Your task to perform on an android device: turn pop-ups on in chrome Image 0: 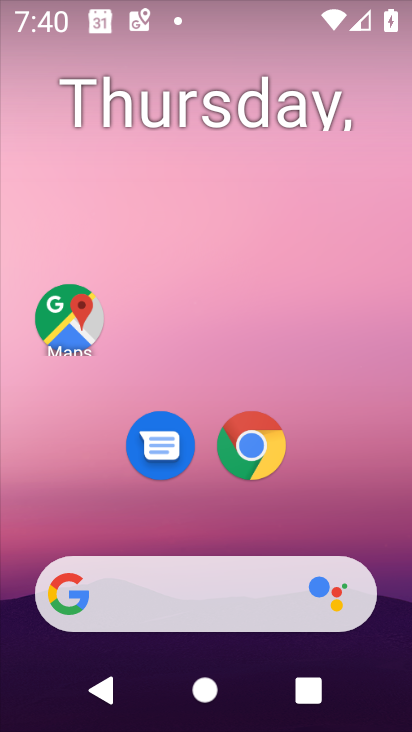
Step 0: drag from (390, 617) to (410, 487)
Your task to perform on an android device: turn pop-ups on in chrome Image 1: 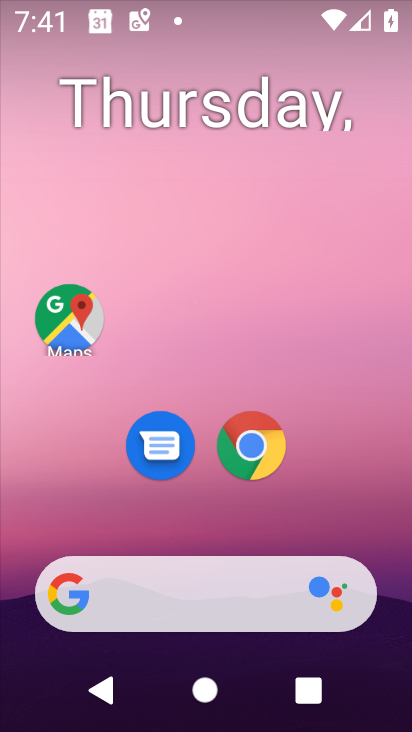
Step 1: drag from (386, 660) to (336, 64)
Your task to perform on an android device: turn pop-ups on in chrome Image 2: 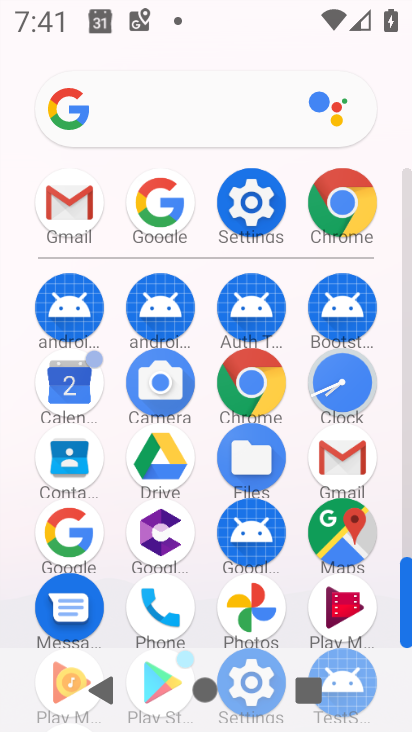
Step 2: click (338, 218)
Your task to perform on an android device: turn pop-ups on in chrome Image 3: 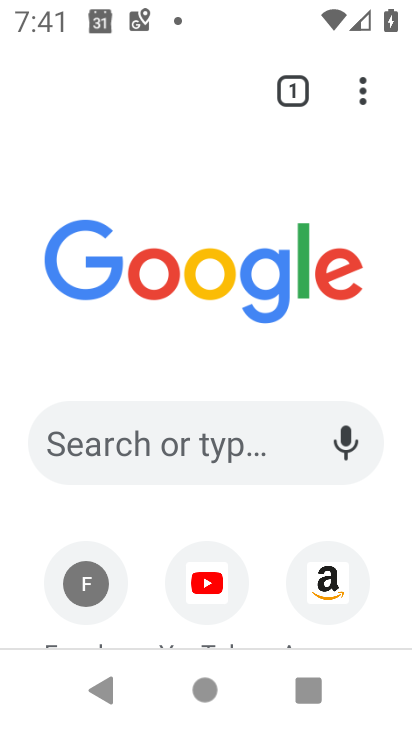
Step 3: click (359, 82)
Your task to perform on an android device: turn pop-ups on in chrome Image 4: 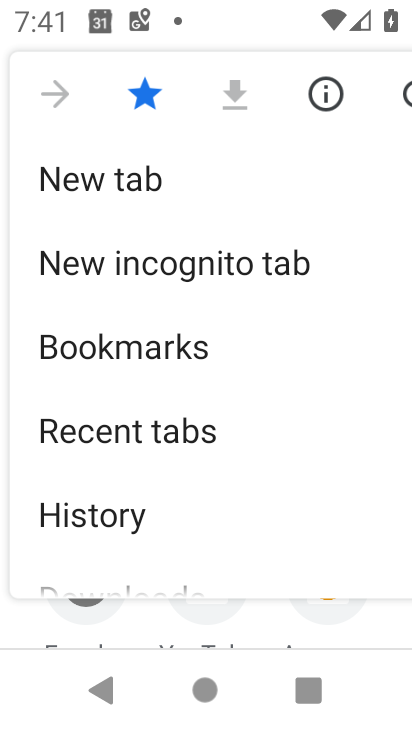
Step 4: drag from (123, 555) to (192, 58)
Your task to perform on an android device: turn pop-ups on in chrome Image 5: 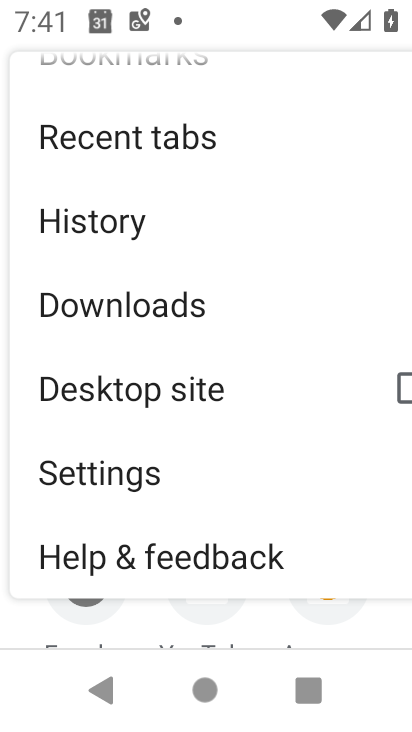
Step 5: click (142, 461)
Your task to perform on an android device: turn pop-ups on in chrome Image 6: 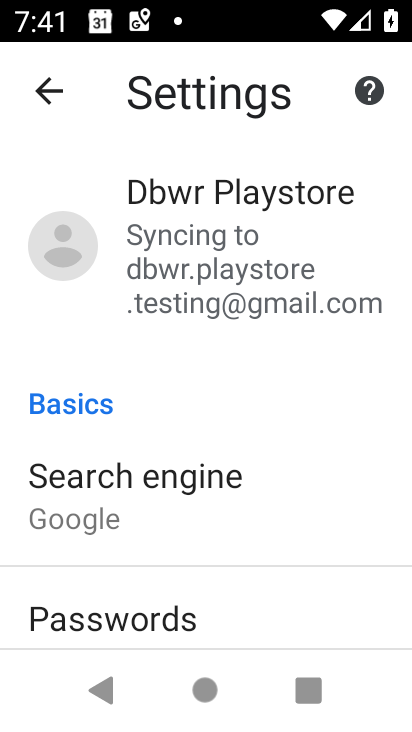
Step 6: drag from (220, 604) to (211, 67)
Your task to perform on an android device: turn pop-ups on in chrome Image 7: 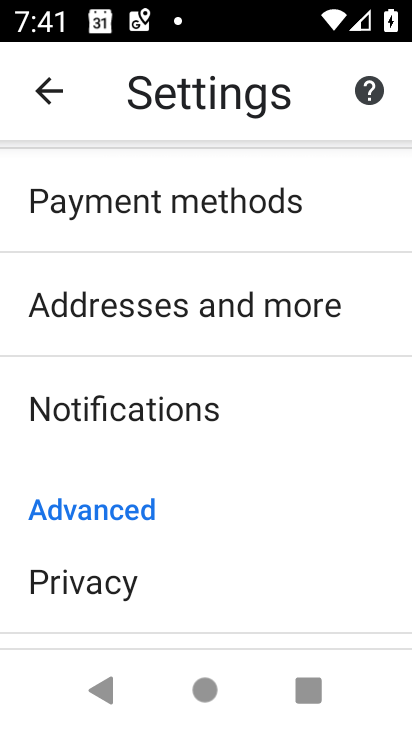
Step 7: drag from (262, 634) to (276, 113)
Your task to perform on an android device: turn pop-ups on in chrome Image 8: 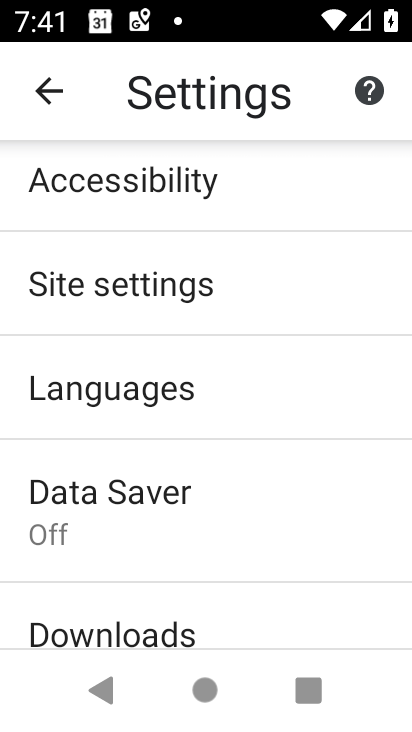
Step 8: click (148, 274)
Your task to perform on an android device: turn pop-ups on in chrome Image 9: 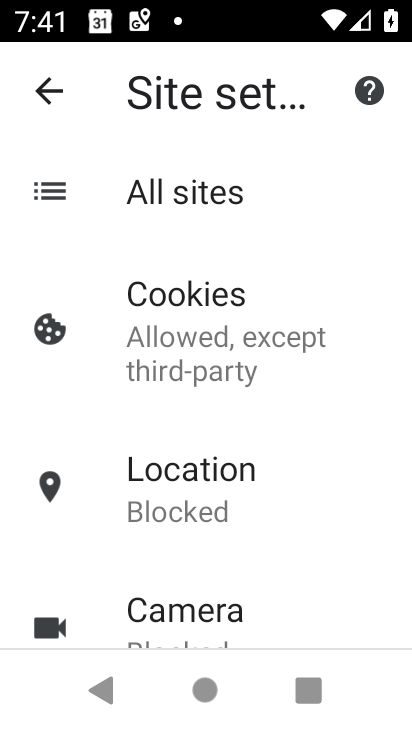
Step 9: drag from (268, 606) to (237, 97)
Your task to perform on an android device: turn pop-ups on in chrome Image 10: 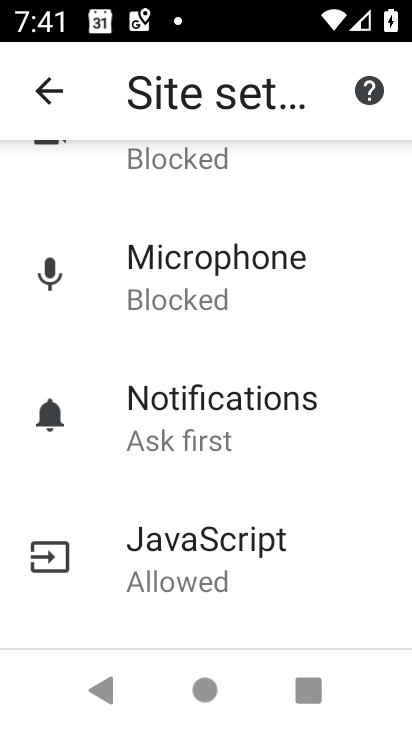
Step 10: drag from (201, 566) to (209, 85)
Your task to perform on an android device: turn pop-ups on in chrome Image 11: 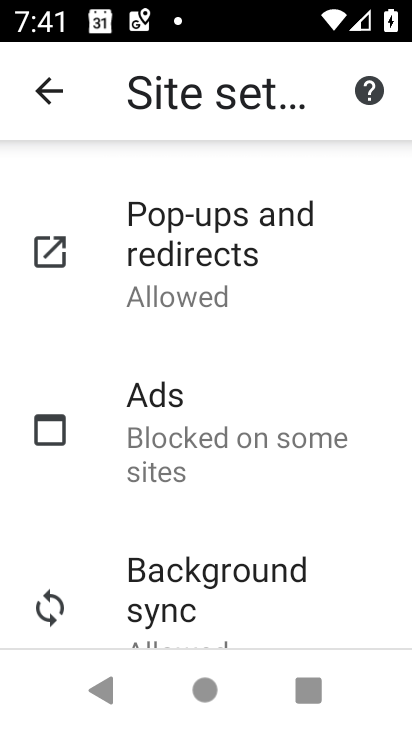
Step 11: click (177, 265)
Your task to perform on an android device: turn pop-ups on in chrome Image 12: 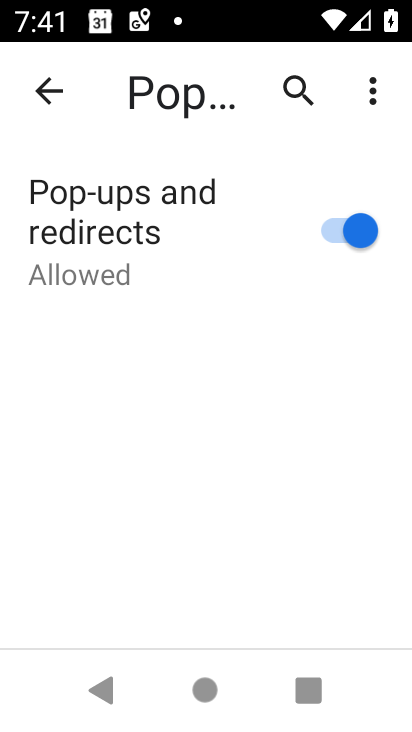
Step 12: task complete